Your task to perform on an android device: all mails in gmail Image 0: 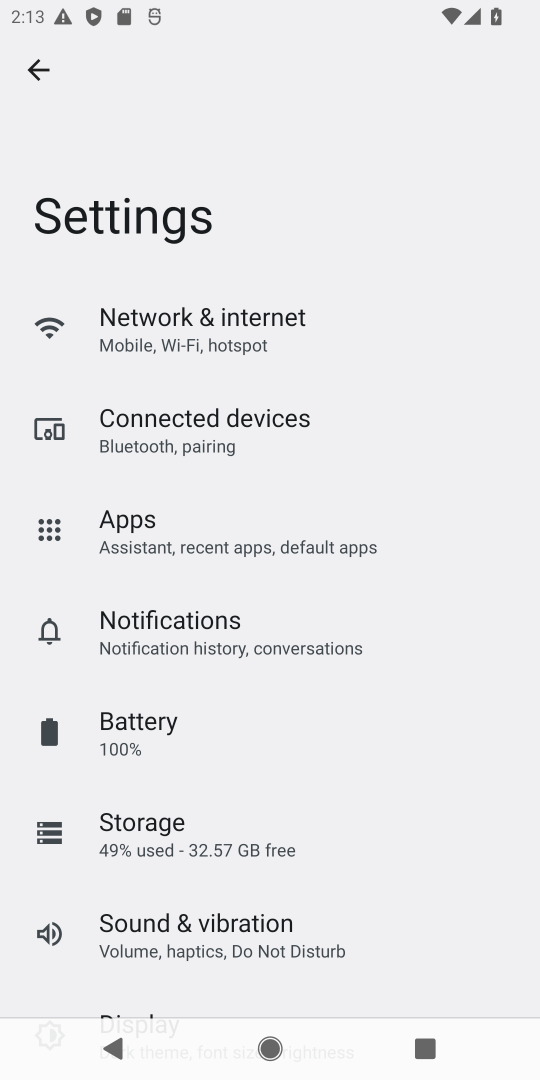
Step 0: press home button
Your task to perform on an android device: all mails in gmail Image 1: 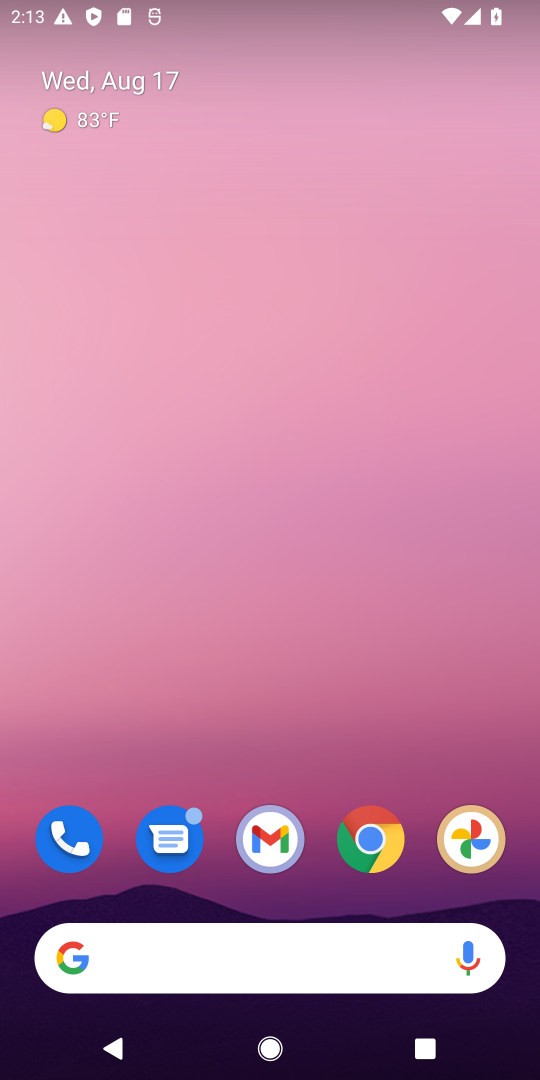
Step 1: drag from (316, 893) to (303, 92)
Your task to perform on an android device: all mails in gmail Image 2: 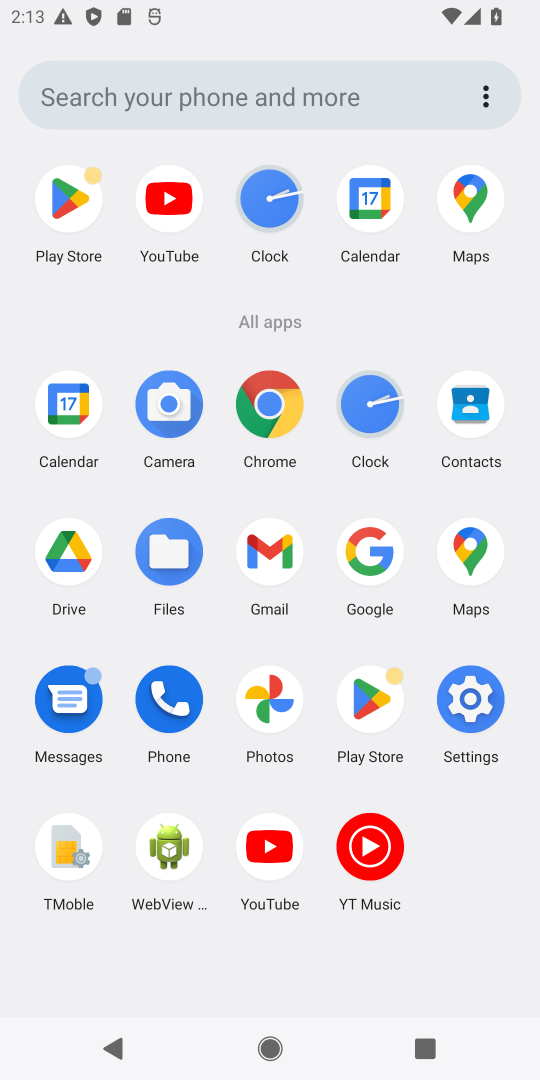
Step 2: click (276, 561)
Your task to perform on an android device: all mails in gmail Image 3: 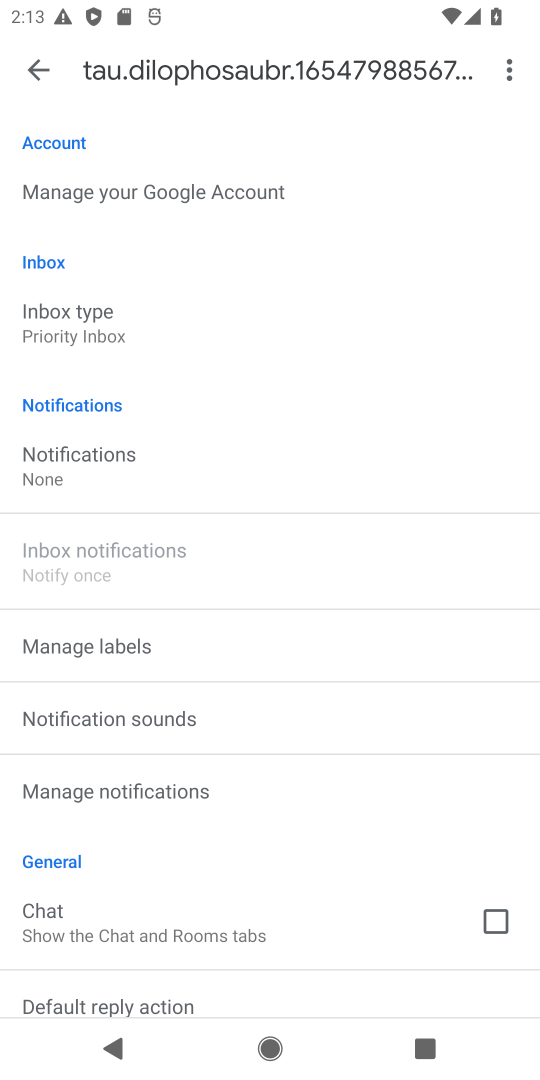
Step 3: click (35, 57)
Your task to perform on an android device: all mails in gmail Image 4: 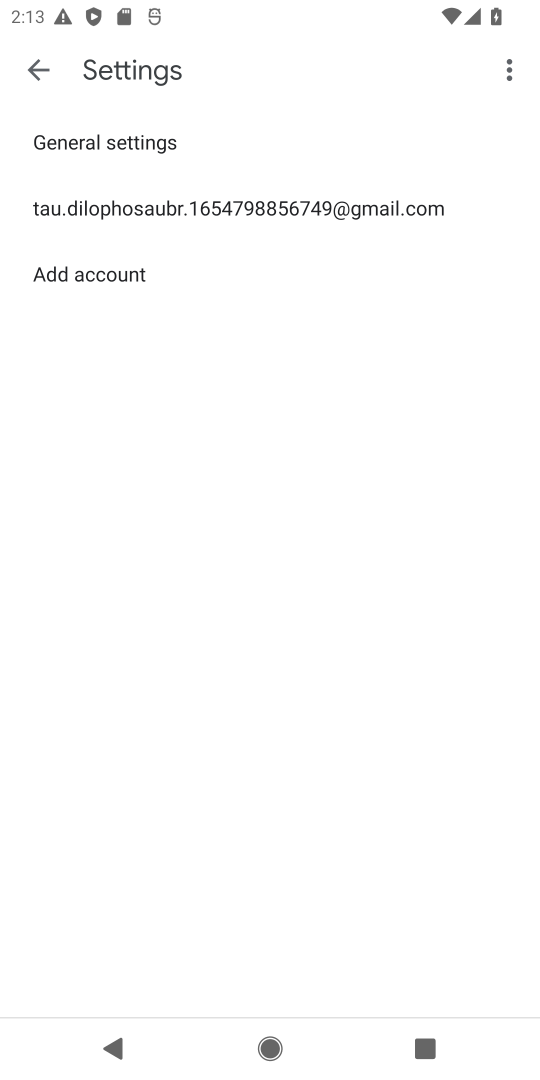
Step 4: click (36, 65)
Your task to perform on an android device: all mails in gmail Image 5: 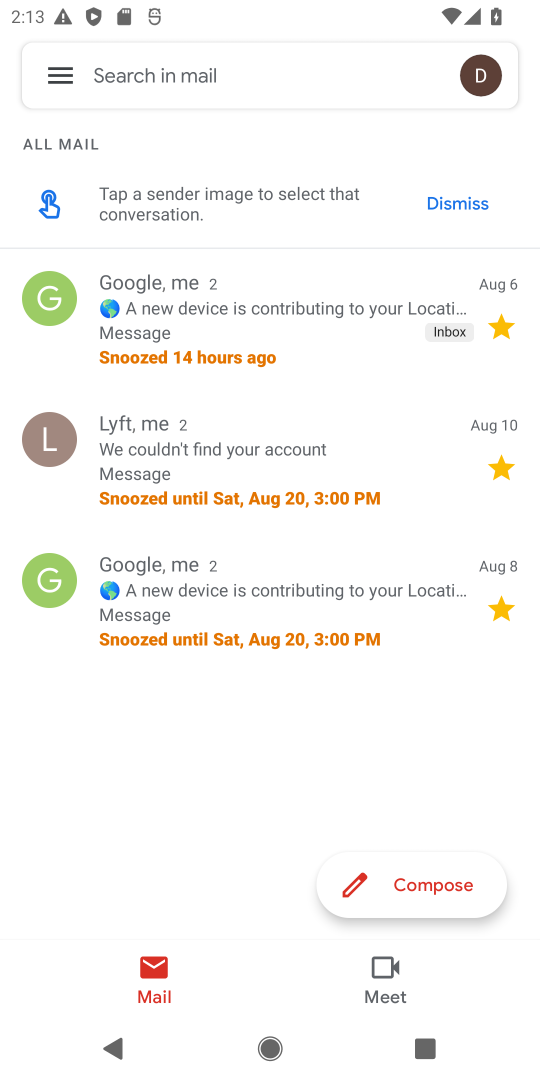
Step 5: task complete